Your task to perform on an android device: turn on wifi Image 0: 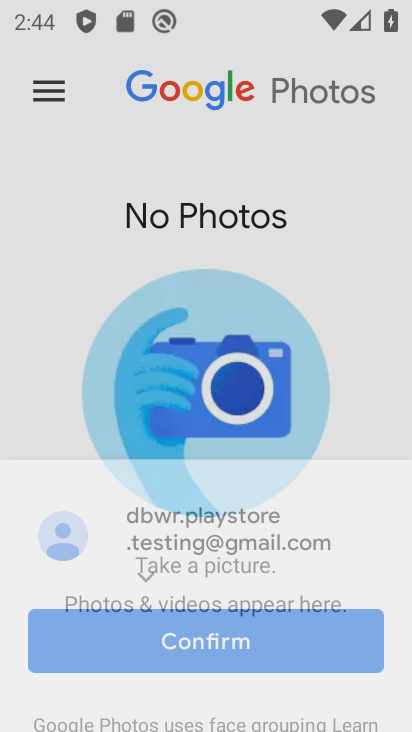
Step 0: press home button
Your task to perform on an android device: turn on wifi Image 1: 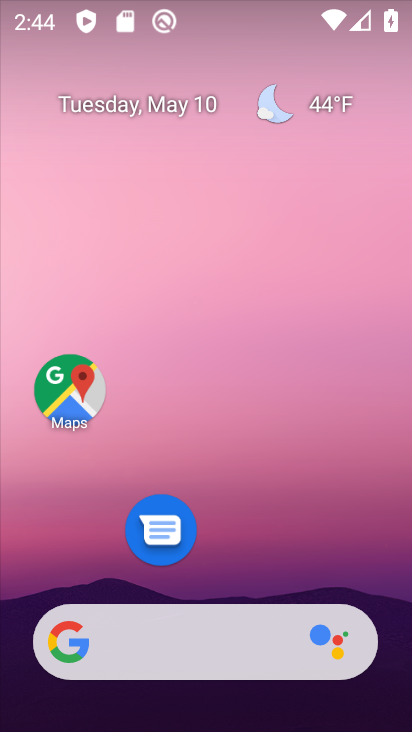
Step 1: drag from (260, 529) to (246, 73)
Your task to perform on an android device: turn on wifi Image 2: 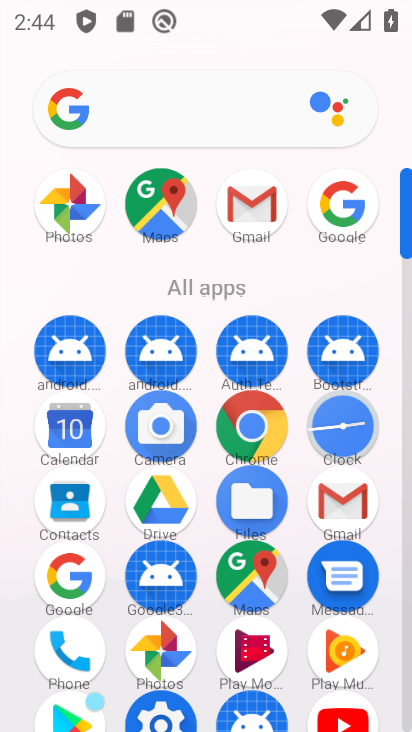
Step 2: click (162, 717)
Your task to perform on an android device: turn on wifi Image 3: 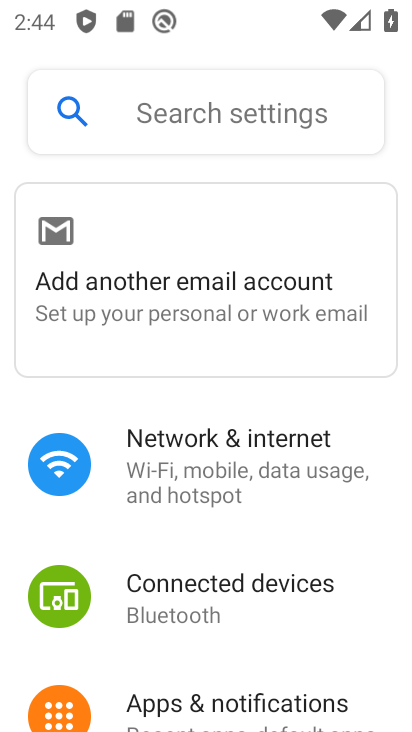
Step 3: click (213, 469)
Your task to perform on an android device: turn on wifi Image 4: 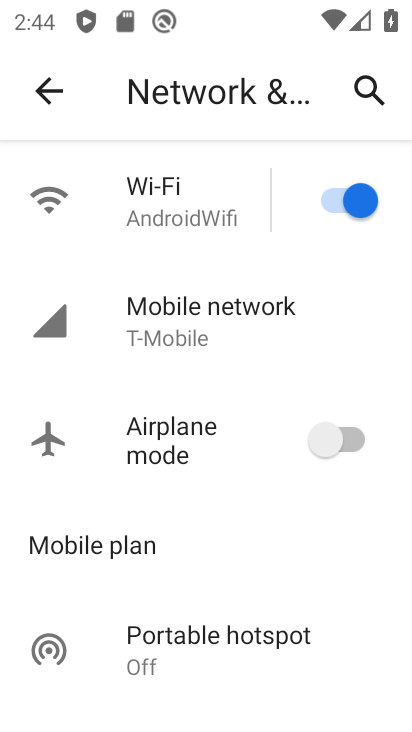
Step 4: task complete